Your task to perform on an android device: Open the stopwatch Image 0: 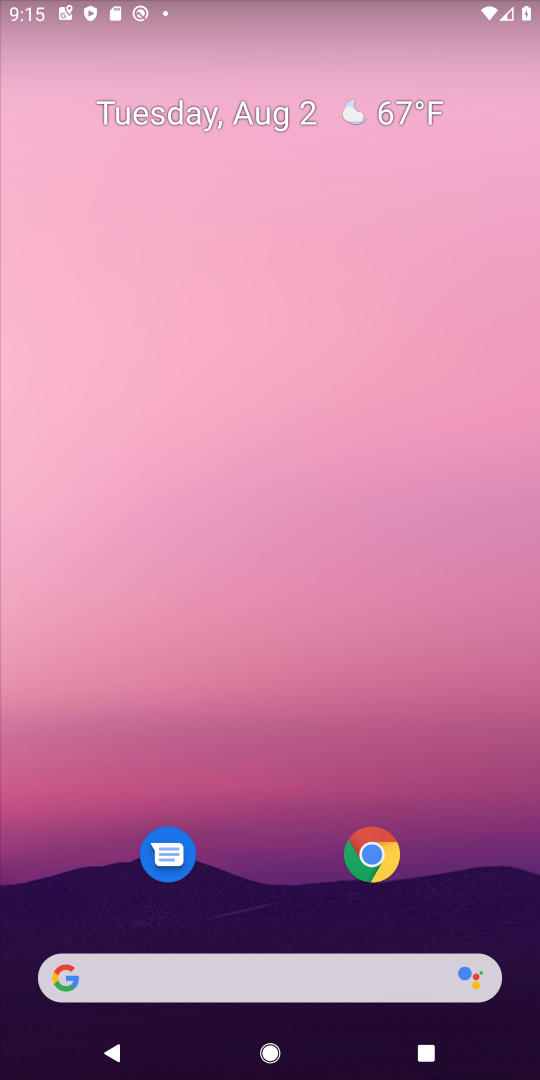
Step 0: drag from (304, 825) to (280, 45)
Your task to perform on an android device: Open the stopwatch Image 1: 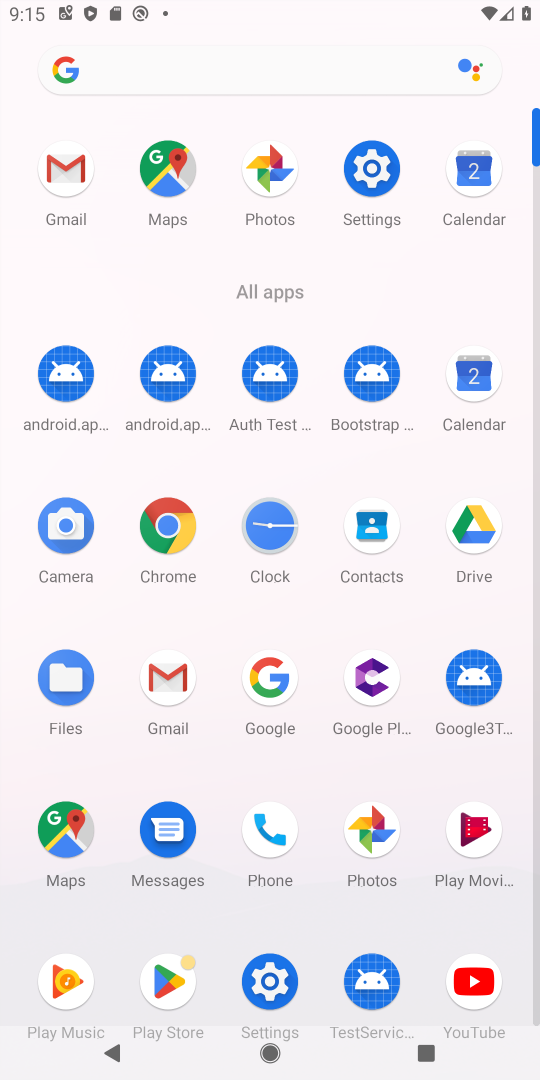
Step 1: click (277, 510)
Your task to perform on an android device: Open the stopwatch Image 2: 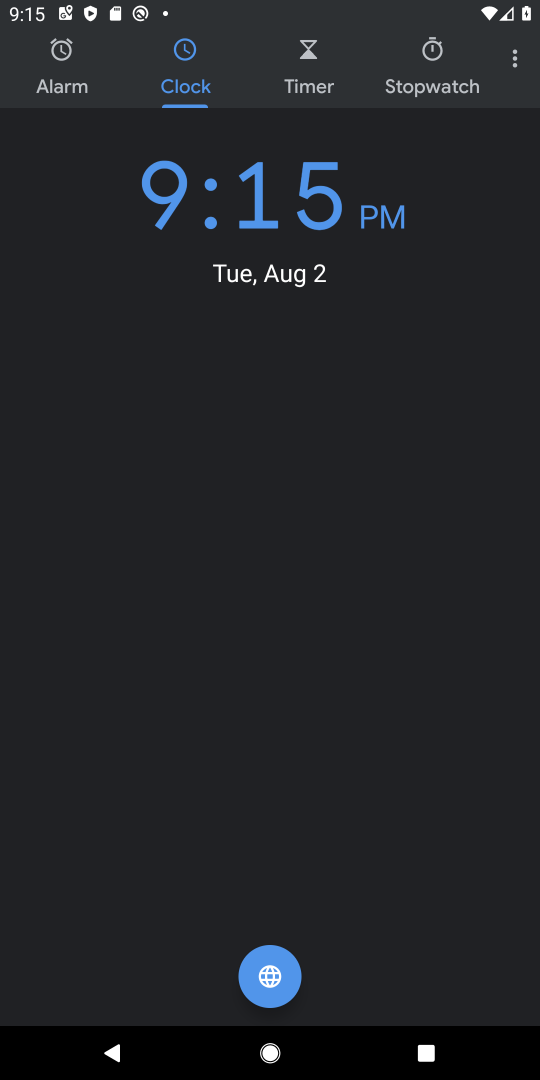
Step 2: click (428, 52)
Your task to perform on an android device: Open the stopwatch Image 3: 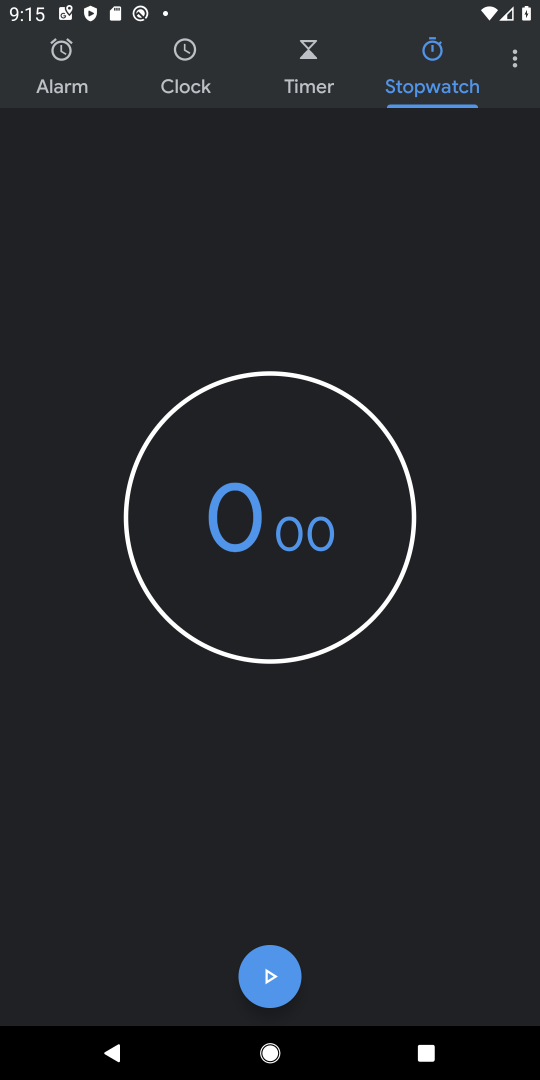
Step 3: task complete